Your task to perform on an android device: Add rayovac triple a to the cart on target Image 0: 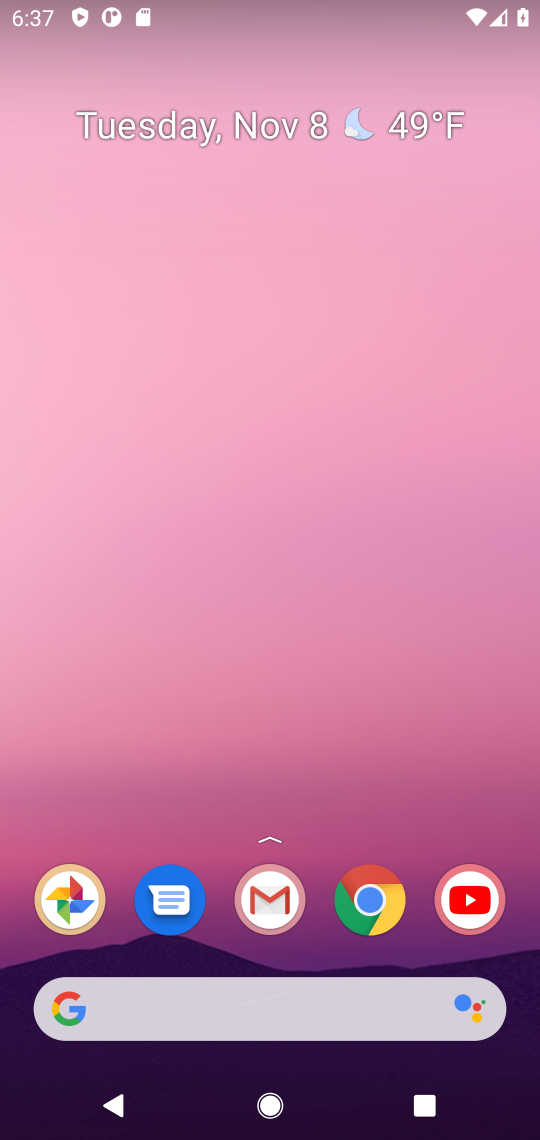
Step 0: drag from (416, 901) to (436, 115)
Your task to perform on an android device: Add rayovac triple a to the cart on target Image 1: 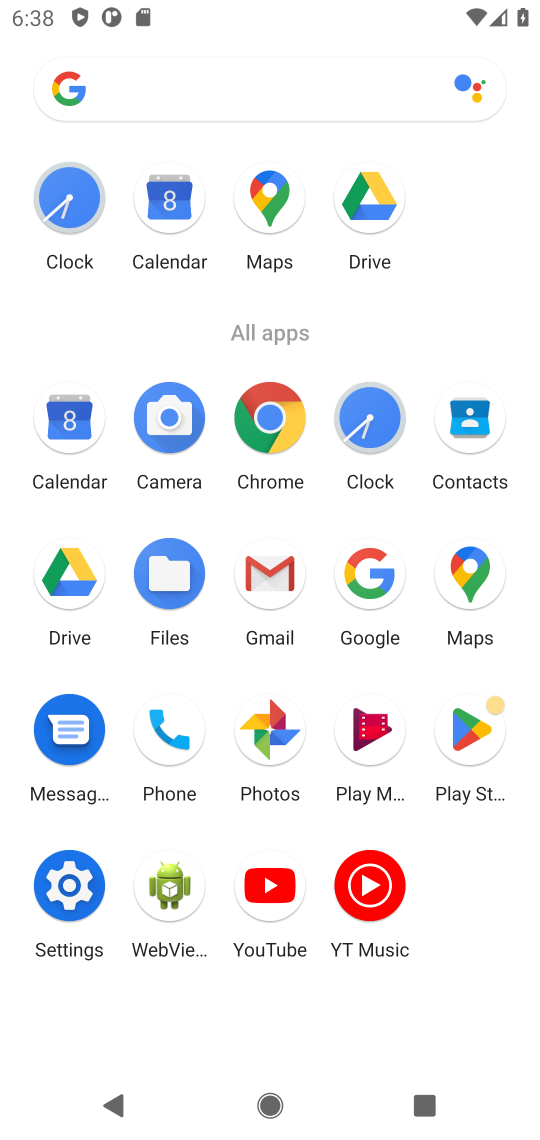
Step 1: click (358, 554)
Your task to perform on an android device: Add rayovac triple a to the cart on target Image 2: 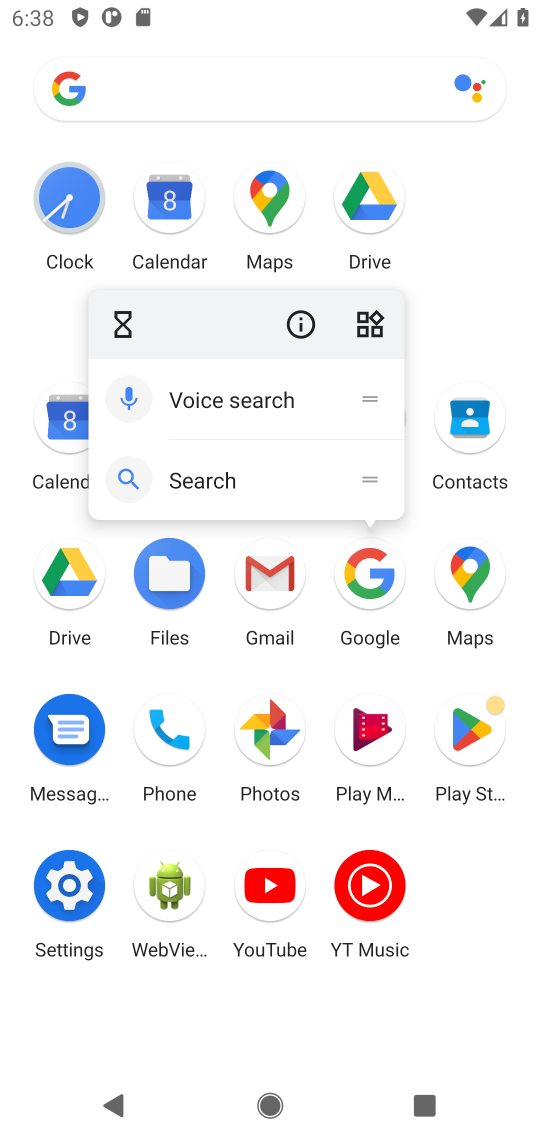
Step 2: click (358, 560)
Your task to perform on an android device: Add rayovac triple a to the cart on target Image 3: 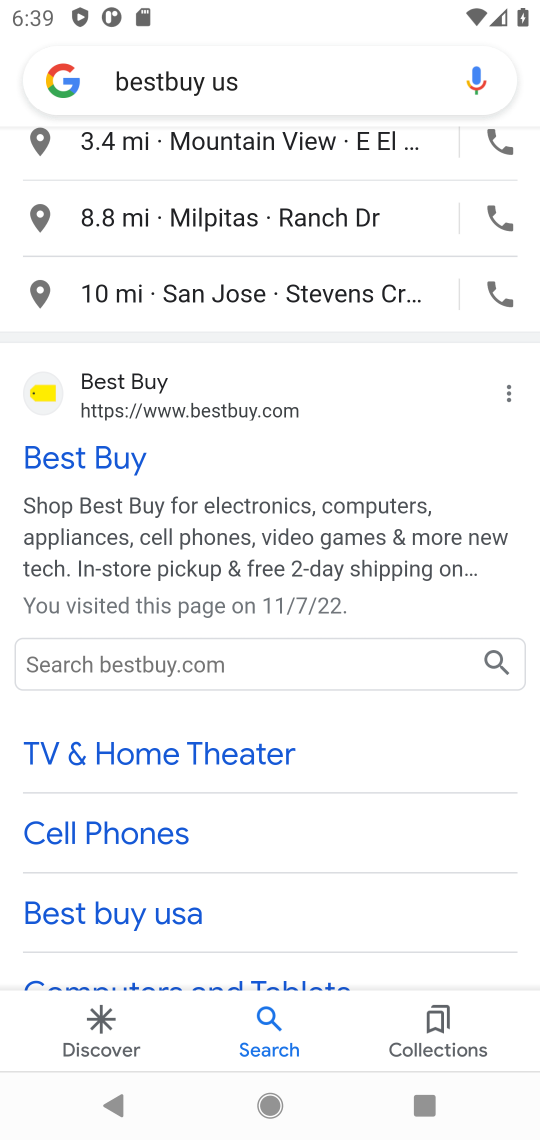
Step 3: drag from (46, 392) to (176, 759)
Your task to perform on an android device: Add rayovac triple a to the cart on target Image 4: 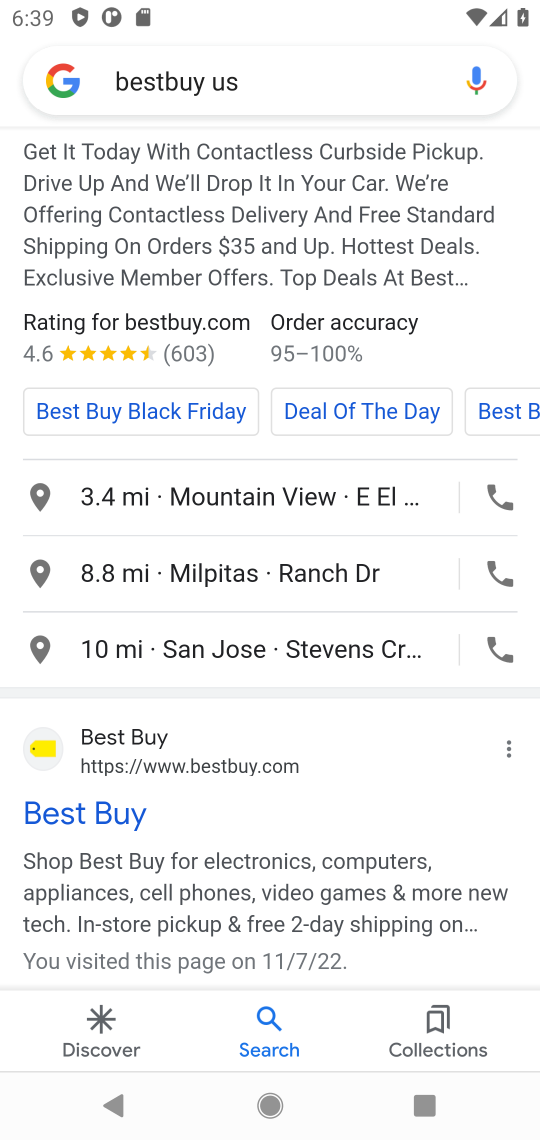
Step 4: click (248, 91)
Your task to perform on an android device: Add rayovac triple a to the cart on target Image 5: 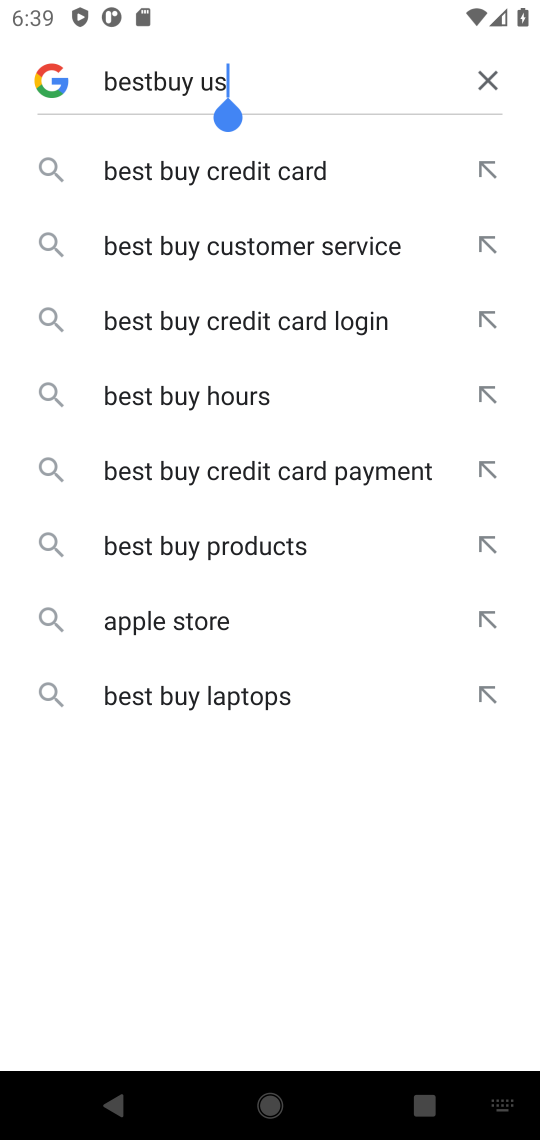
Step 5: click (335, 78)
Your task to perform on an android device: Add rayovac triple a to the cart on target Image 6: 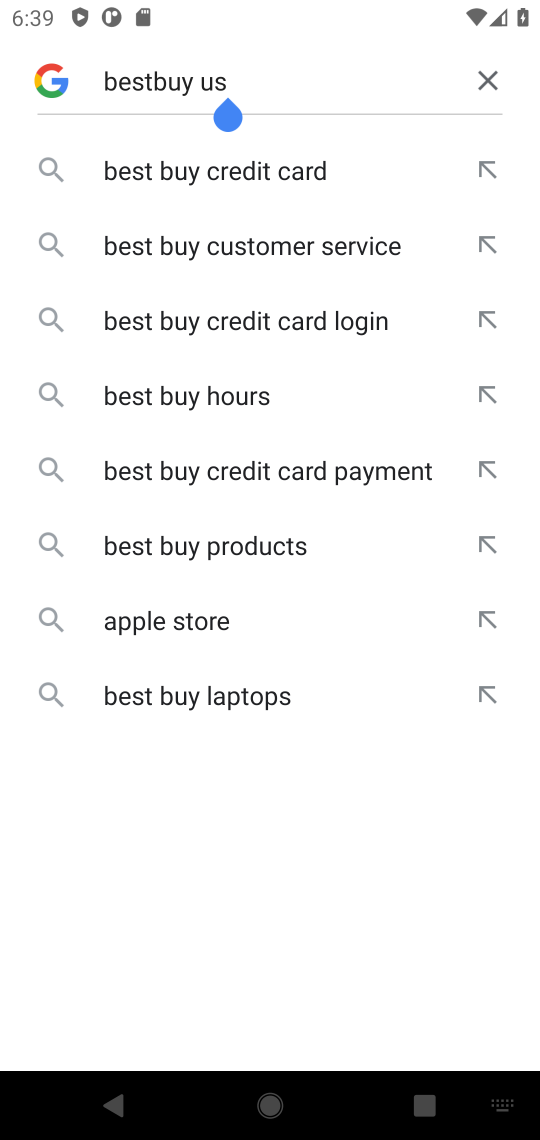
Step 6: click (476, 81)
Your task to perform on an android device: Add rayovac triple a to the cart on target Image 7: 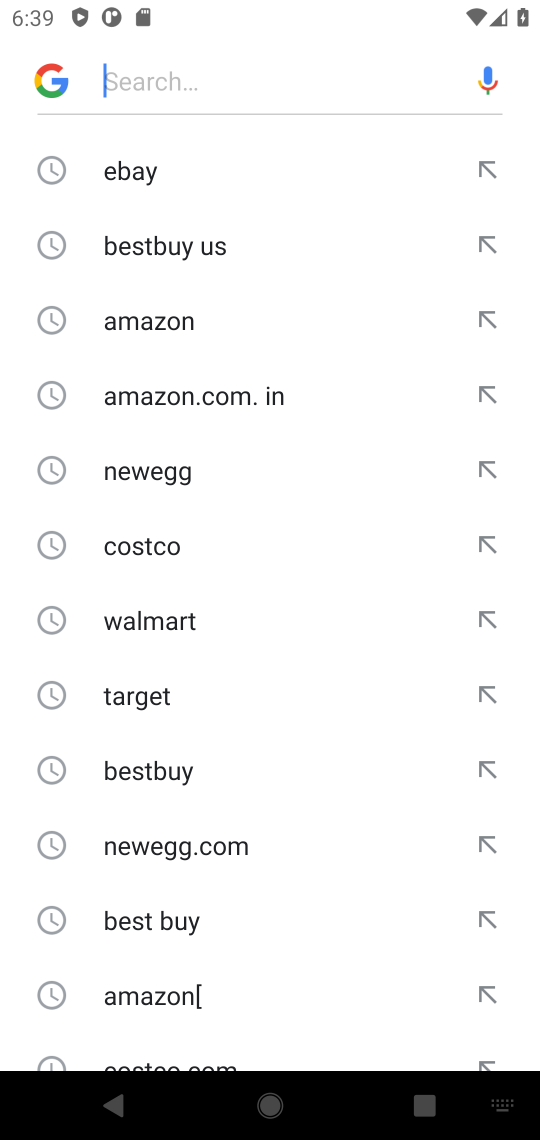
Step 7: click (154, 86)
Your task to perform on an android device: Add rayovac triple a to the cart on target Image 8: 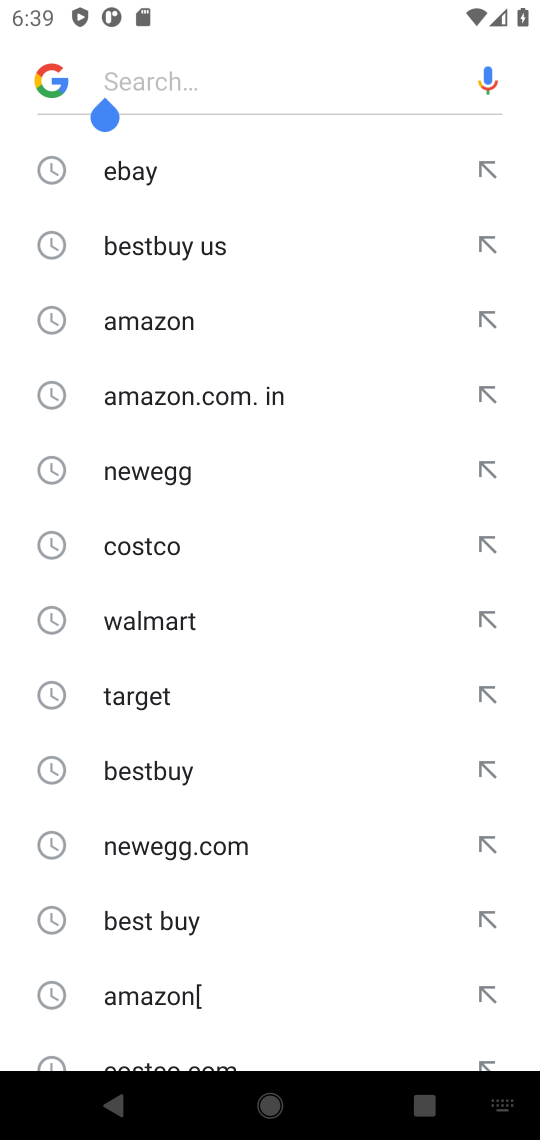
Step 8: type "target "
Your task to perform on an android device: Add rayovac triple a to the cart on target Image 9: 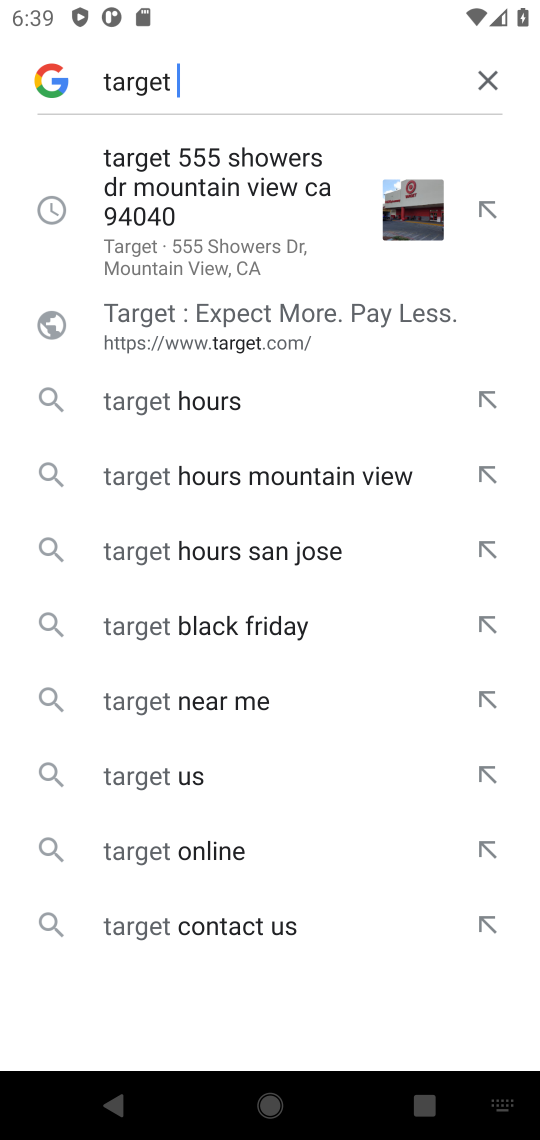
Step 9: click (221, 320)
Your task to perform on an android device: Add rayovac triple a to the cart on target Image 10: 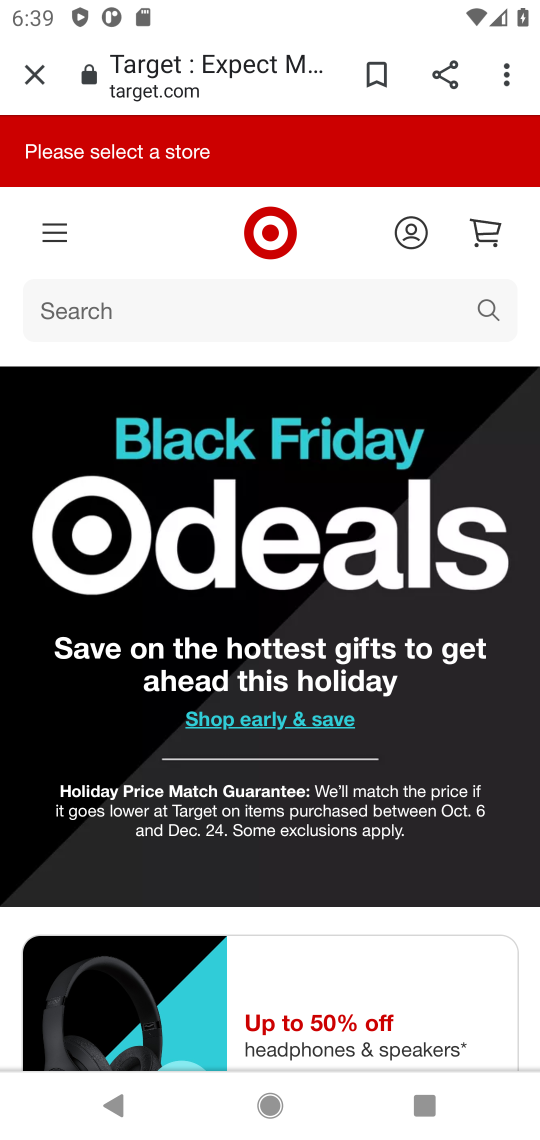
Step 10: click (319, 295)
Your task to perform on an android device: Add rayovac triple a to the cart on target Image 11: 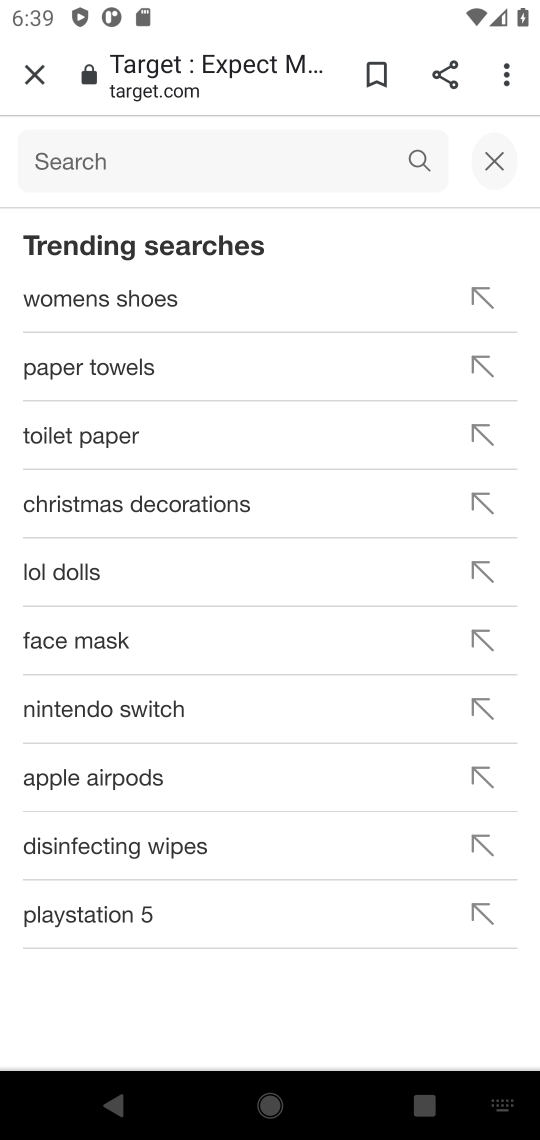
Step 11: type " rayovac triple  "
Your task to perform on an android device: Add rayovac triple a to the cart on target Image 12: 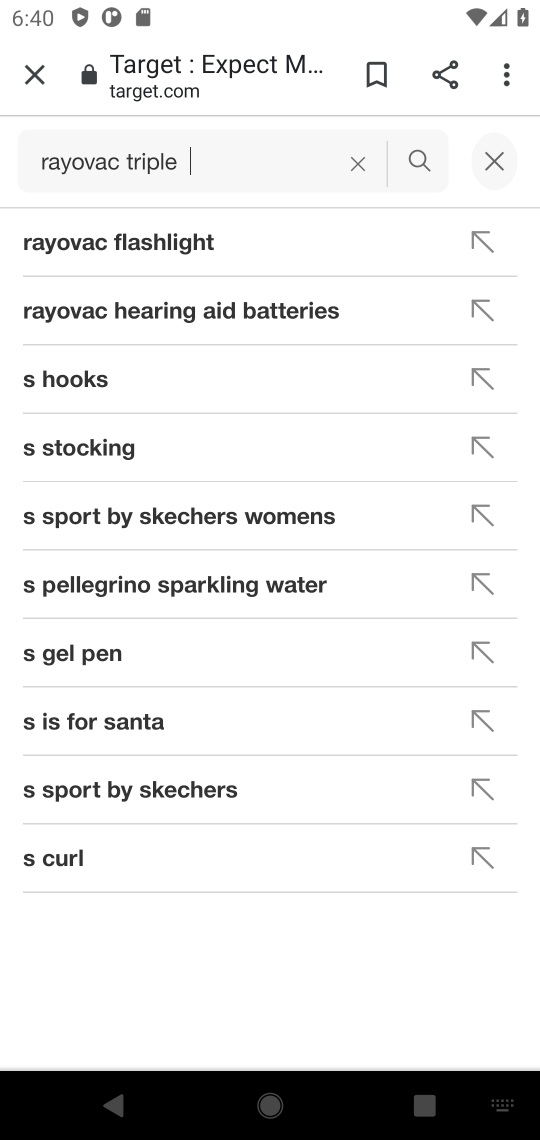
Step 12: click (447, 238)
Your task to perform on an android device: Add rayovac triple a to the cart on target Image 13: 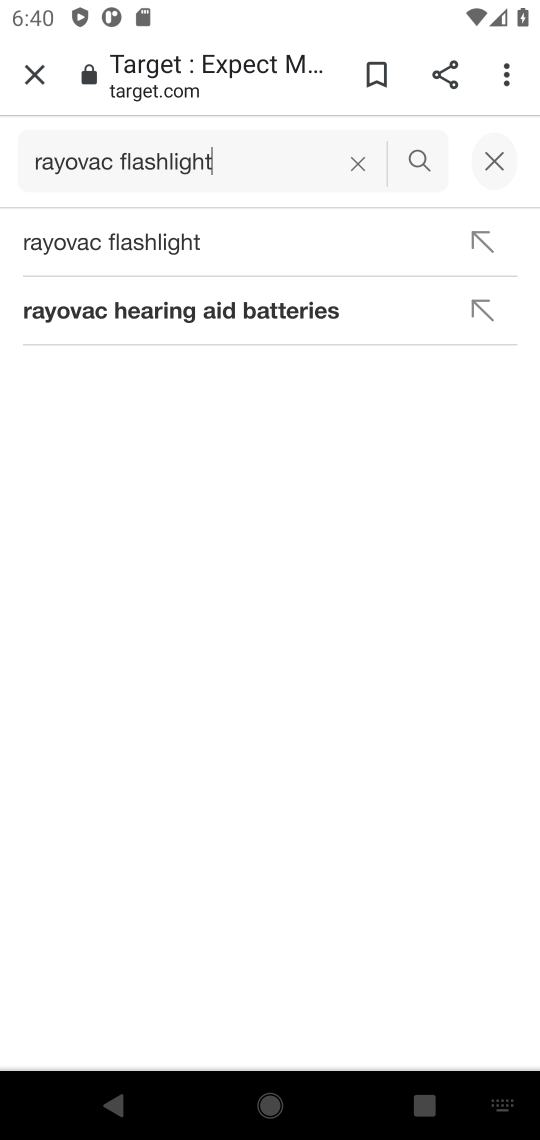
Step 13: click (247, 314)
Your task to perform on an android device: Add rayovac triple a to the cart on target Image 14: 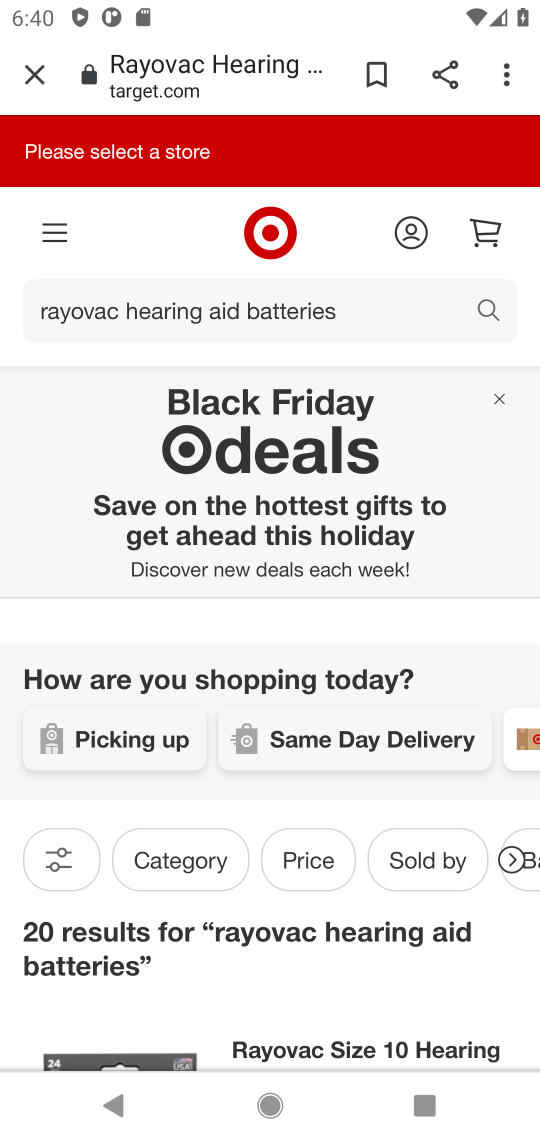
Step 14: drag from (234, 869) to (236, 456)
Your task to perform on an android device: Add rayovac triple a to the cart on target Image 15: 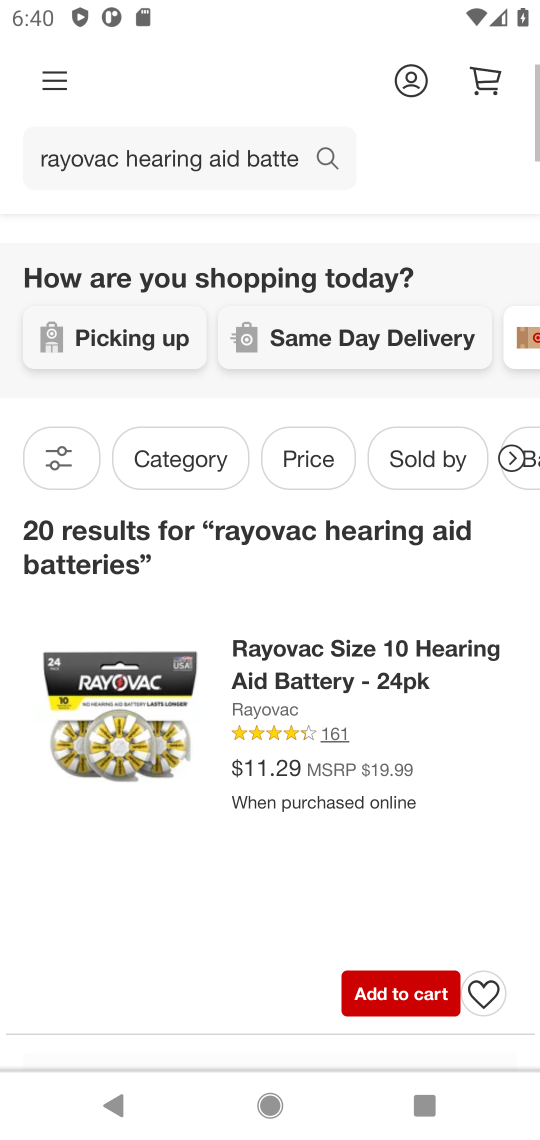
Step 15: drag from (313, 992) to (344, 531)
Your task to perform on an android device: Add rayovac triple a to the cart on target Image 16: 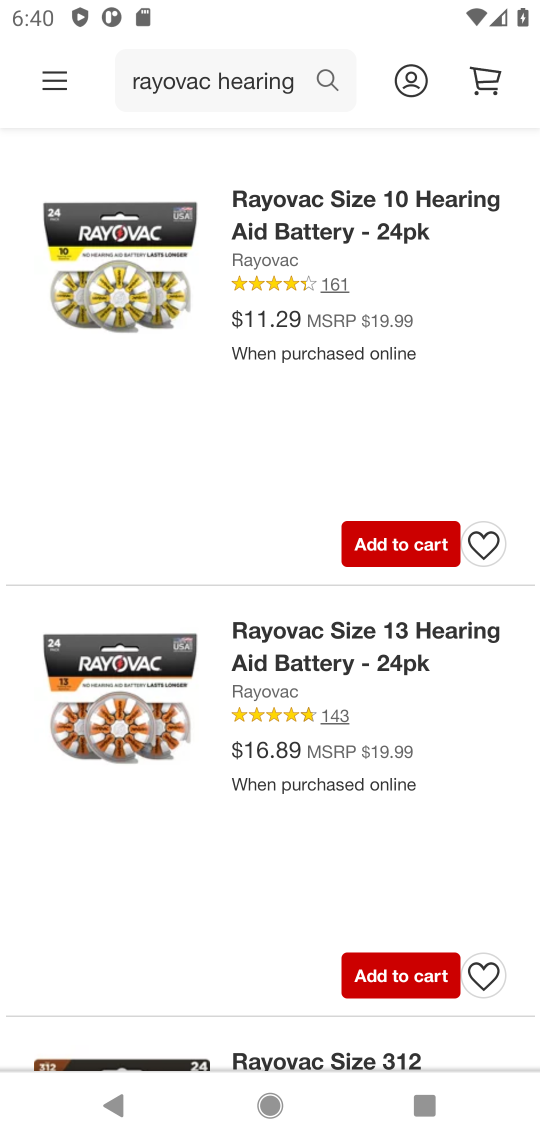
Step 16: click (398, 539)
Your task to perform on an android device: Add rayovac triple a to the cart on target Image 17: 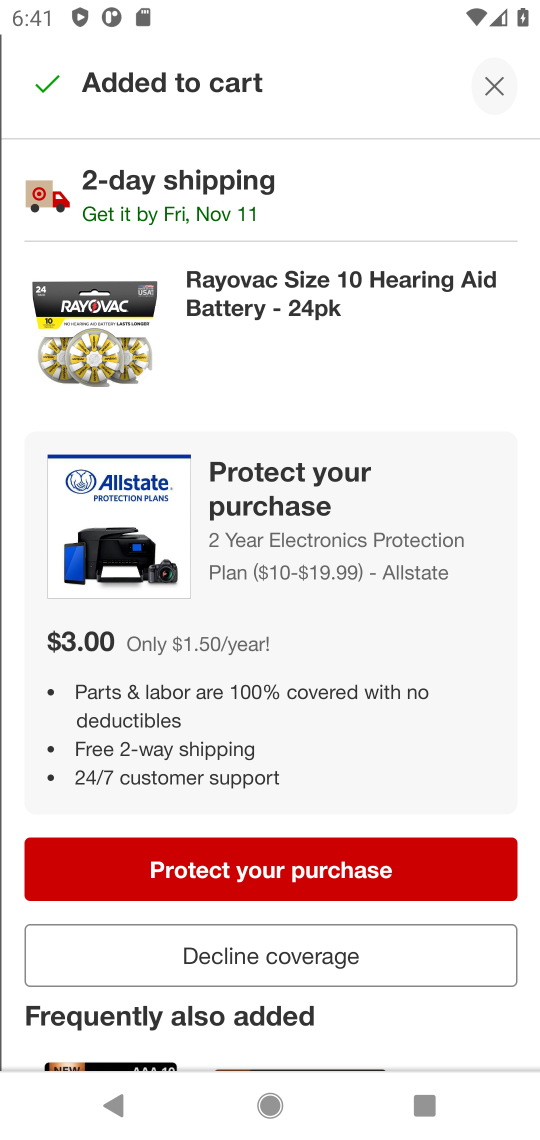
Step 17: task complete